Your task to perform on an android device: allow cookies in the chrome app Image 0: 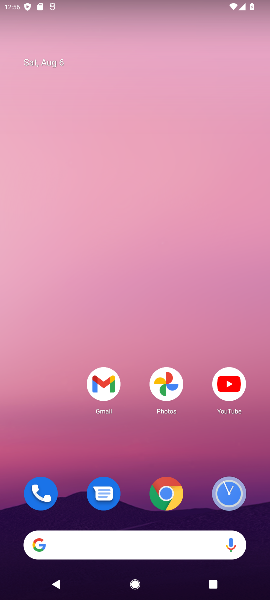
Step 0: click (171, 489)
Your task to perform on an android device: allow cookies in the chrome app Image 1: 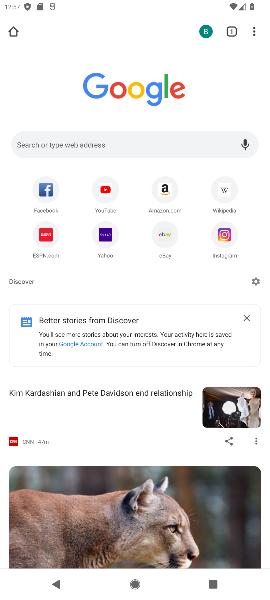
Step 1: drag from (255, 24) to (167, 270)
Your task to perform on an android device: allow cookies in the chrome app Image 2: 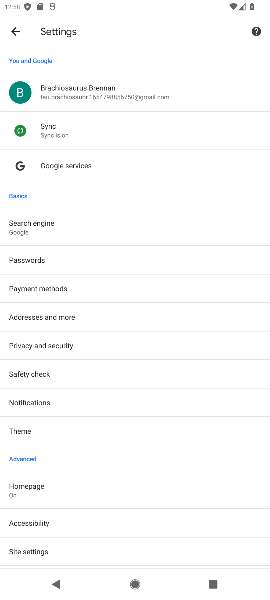
Step 2: click (67, 550)
Your task to perform on an android device: allow cookies in the chrome app Image 3: 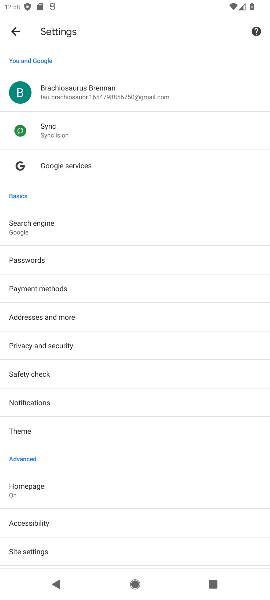
Step 3: click (67, 550)
Your task to perform on an android device: allow cookies in the chrome app Image 4: 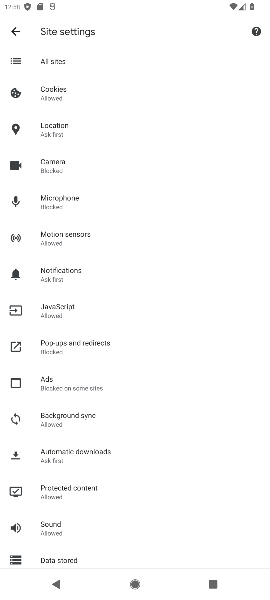
Step 4: click (51, 91)
Your task to perform on an android device: allow cookies in the chrome app Image 5: 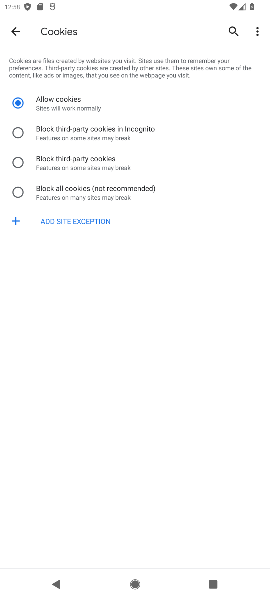
Step 5: task complete